Your task to perform on an android device: set the stopwatch Image 0: 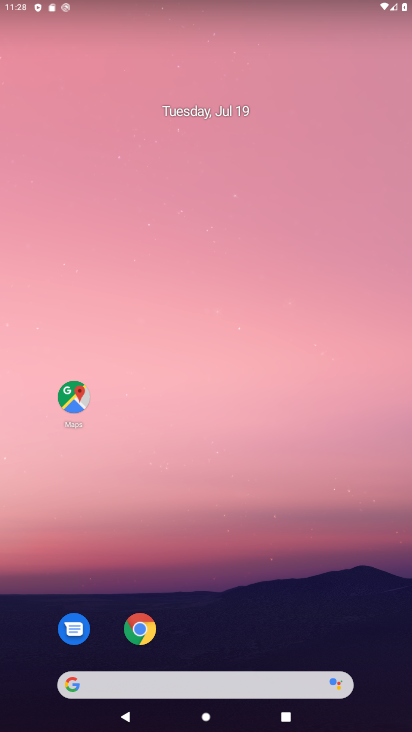
Step 0: drag from (283, 635) to (198, 41)
Your task to perform on an android device: set the stopwatch Image 1: 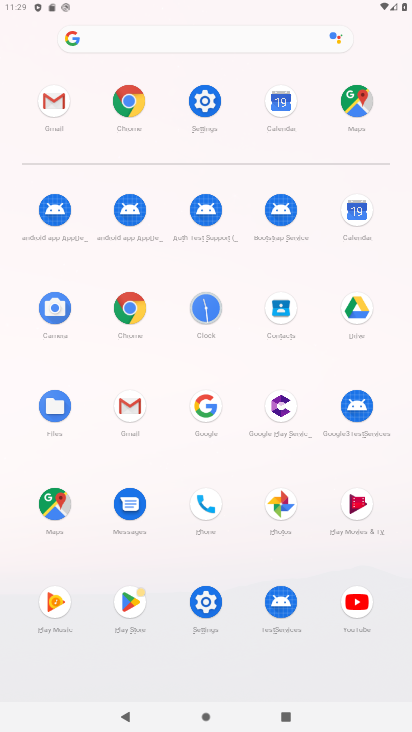
Step 1: click (202, 301)
Your task to perform on an android device: set the stopwatch Image 2: 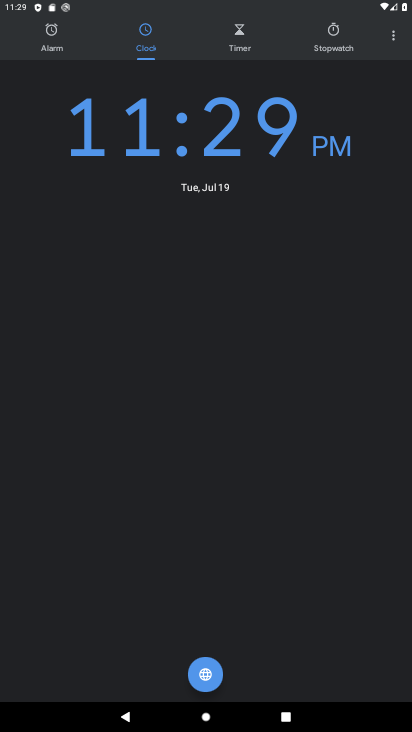
Step 2: click (326, 49)
Your task to perform on an android device: set the stopwatch Image 3: 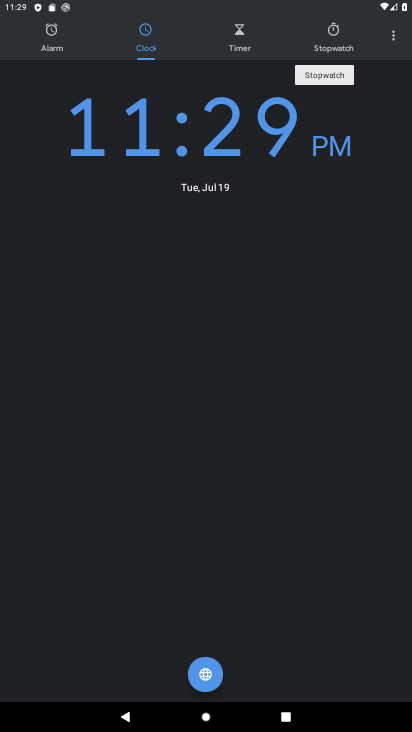
Step 3: click (325, 50)
Your task to perform on an android device: set the stopwatch Image 4: 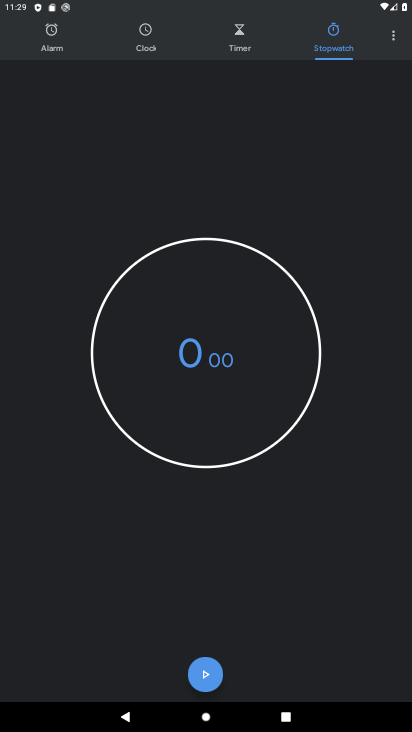
Step 4: click (208, 677)
Your task to perform on an android device: set the stopwatch Image 5: 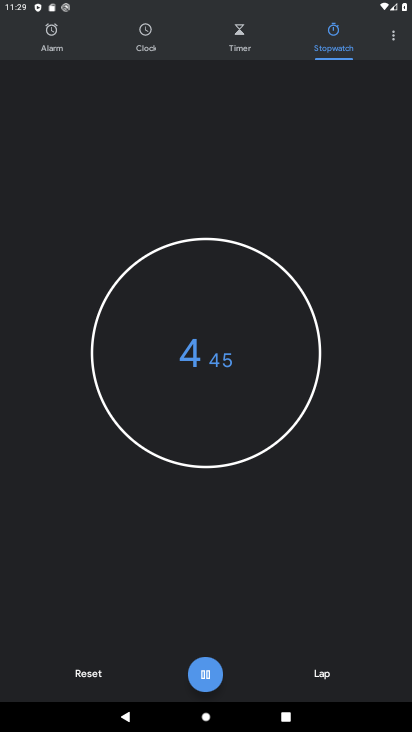
Step 5: task complete